Your task to perform on an android device: turn off improve location accuracy Image 0: 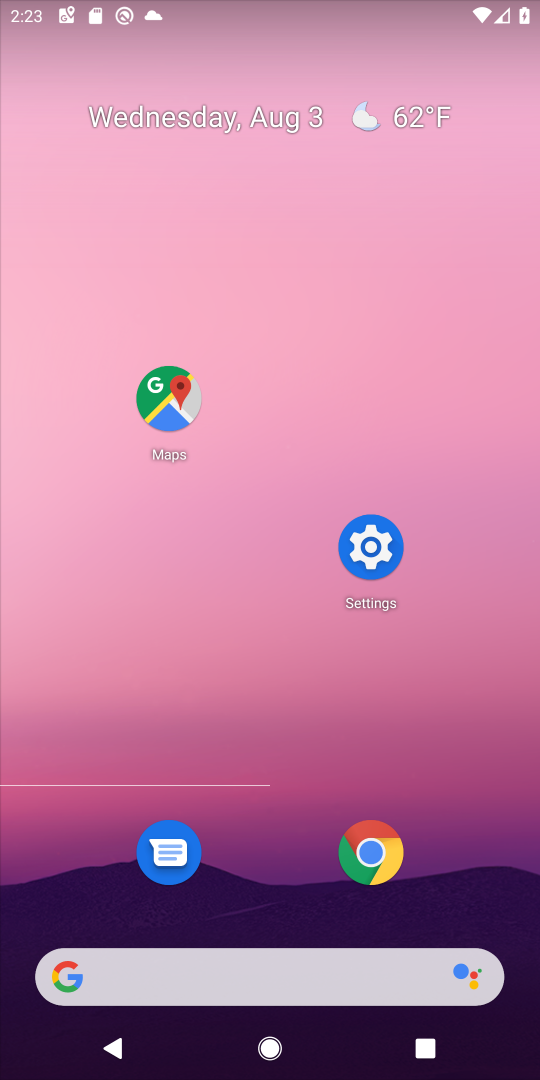
Step 0: click (361, 542)
Your task to perform on an android device: turn off improve location accuracy Image 1: 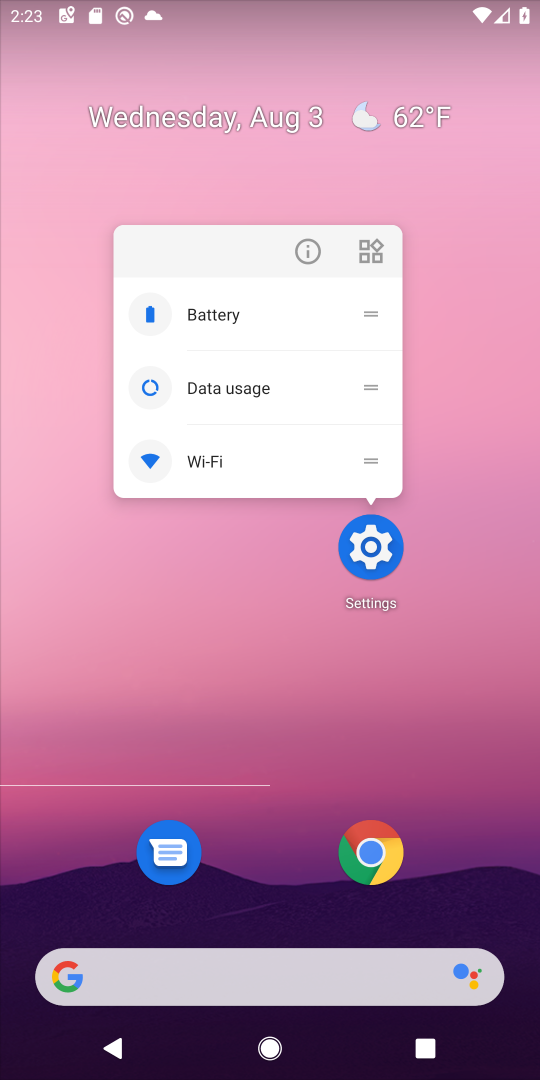
Step 1: click (375, 554)
Your task to perform on an android device: turn off improve location accuracy Image 2: 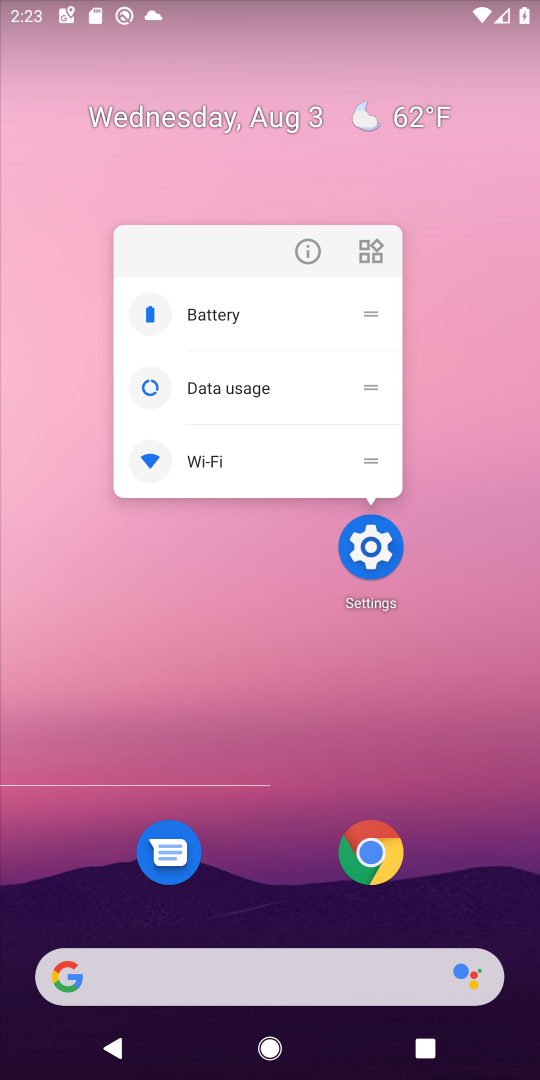
Step 2: click (375, 554)
Your task to perform on an android device: turn off improve location accuracy Image 3: 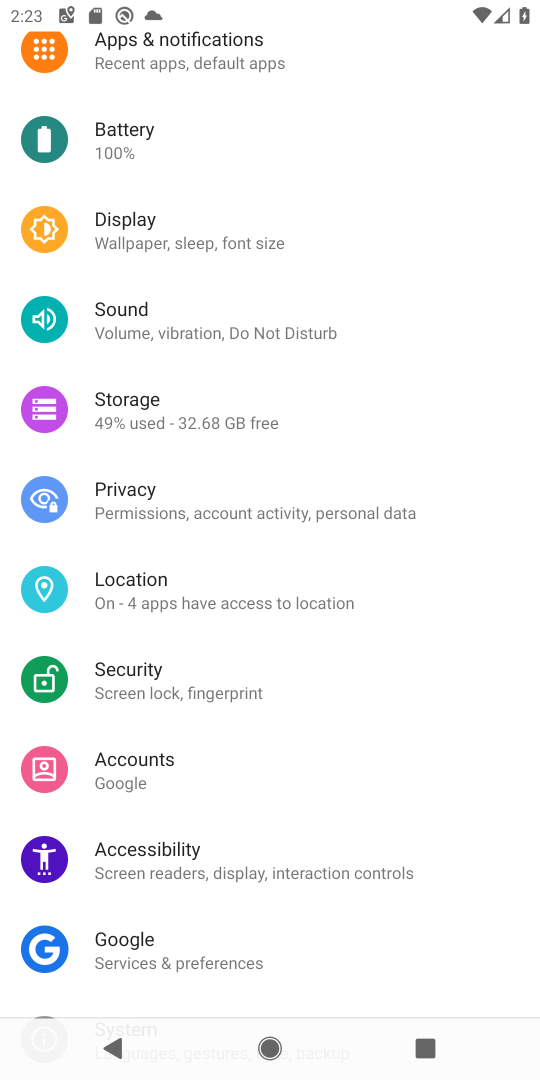
Step 3: drag from (373, 166) to (216, 688)
Your task to perform on an android device: turn off improve location accuracy Image 4: 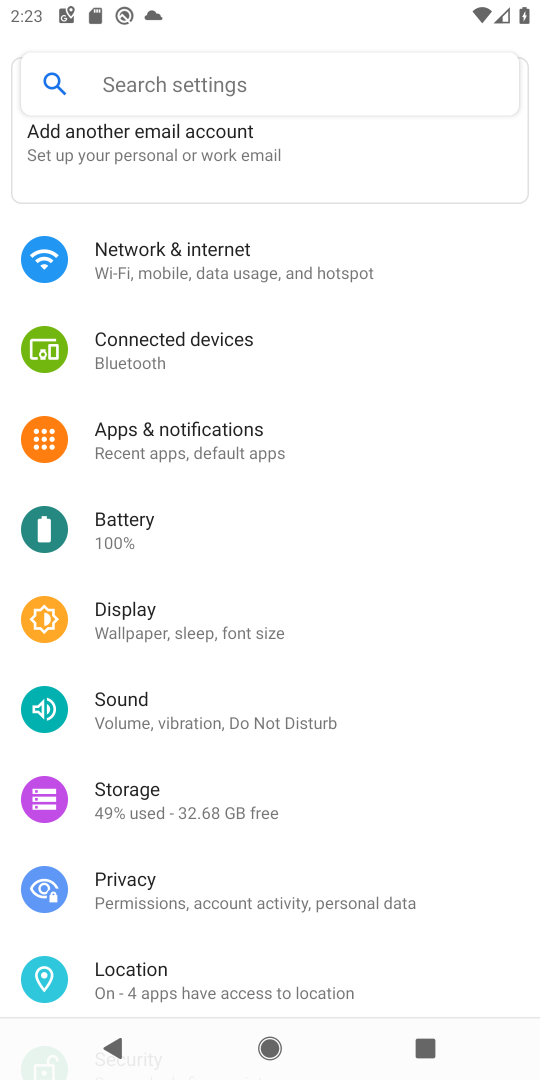
Step 4: click (152, 958)
Your task to perform on an android device: turn off improve location accuracy Image 5: 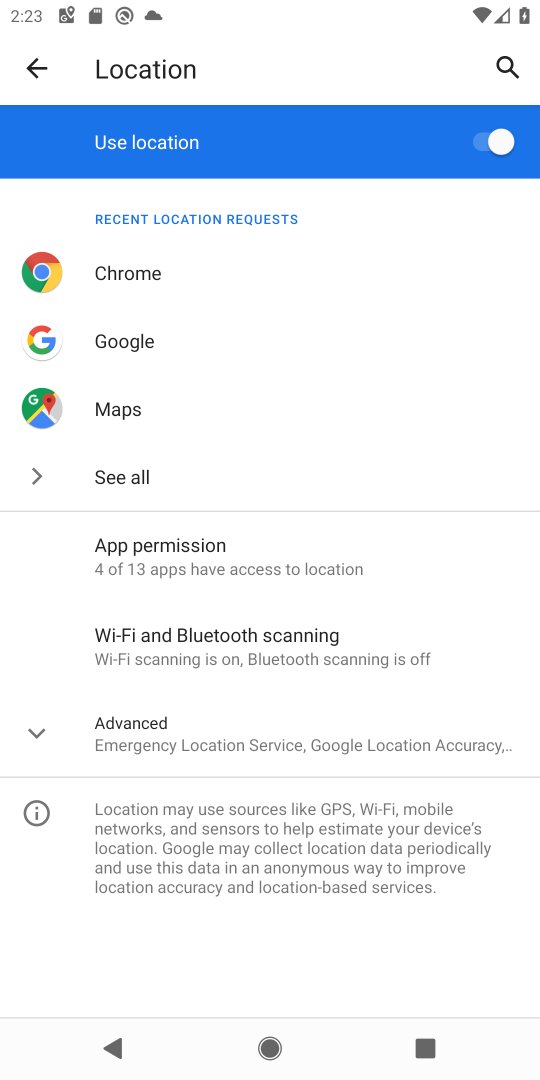
Step 5: click (193, 749)
Your task to perform on an android device: turn off improve location accuracy Image 6: 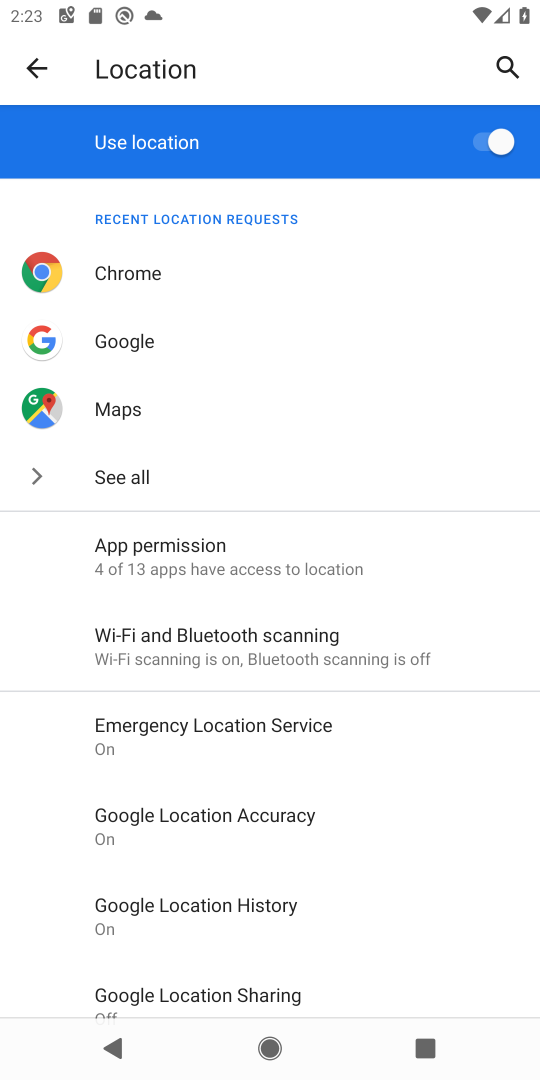
Step 6: click (226, 816)
Your task to perform on an android device: turn off improve location accuracy Image 7: 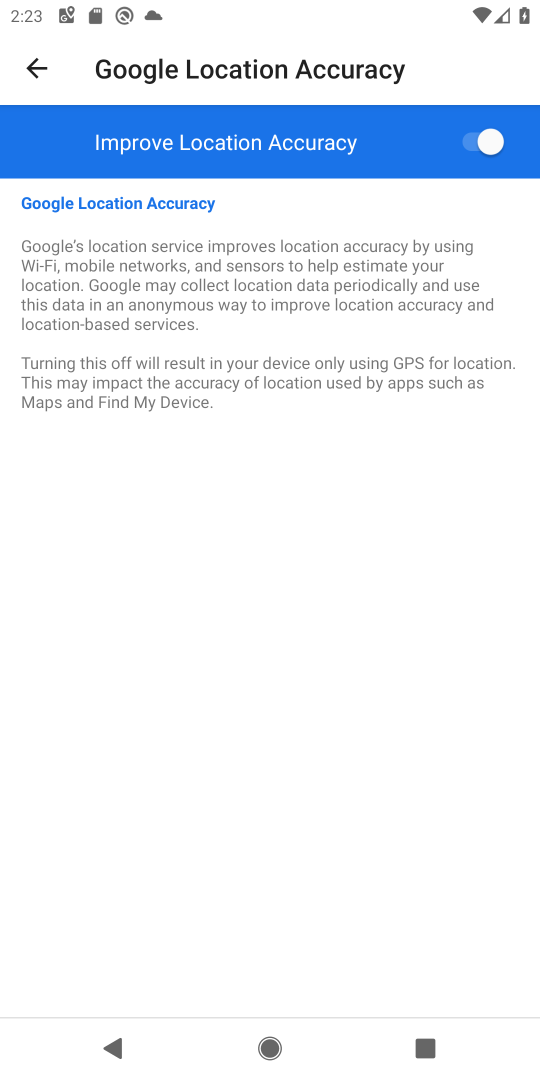
Step 7: click (476, 147)
Your task to perform on an android device: turn off improve location accuracy Image 8: 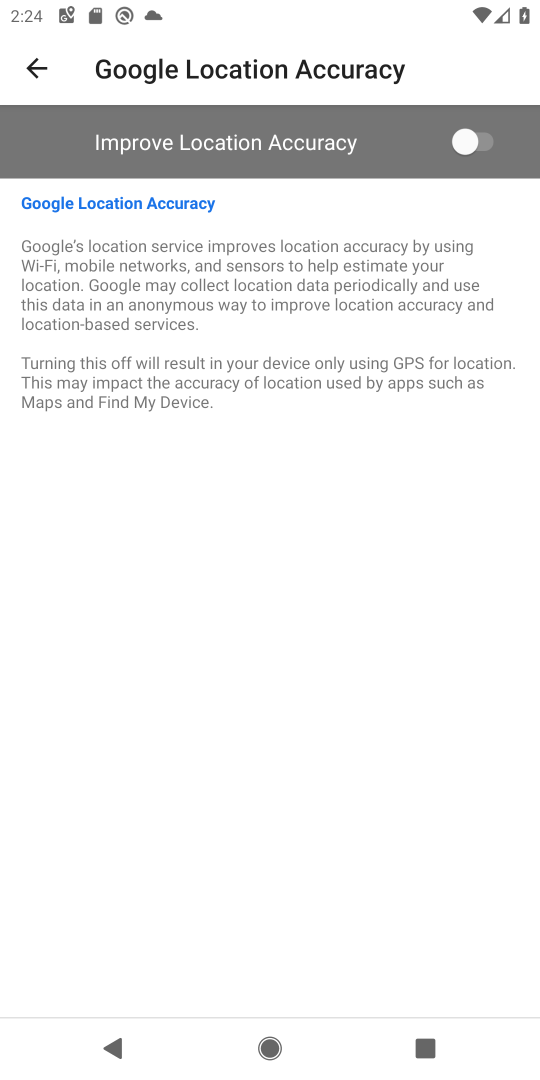
Step 8: task complete